Your task to perform on an android device: Open Youtube and go to the subscriptions tab Image 0: 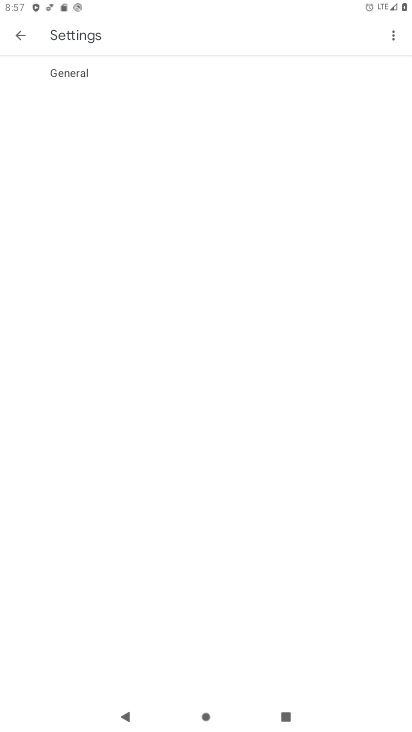
Step 0: press home button
Your task to perform on an android device: Open Youtube and go to the subscriptions tab Image 1: 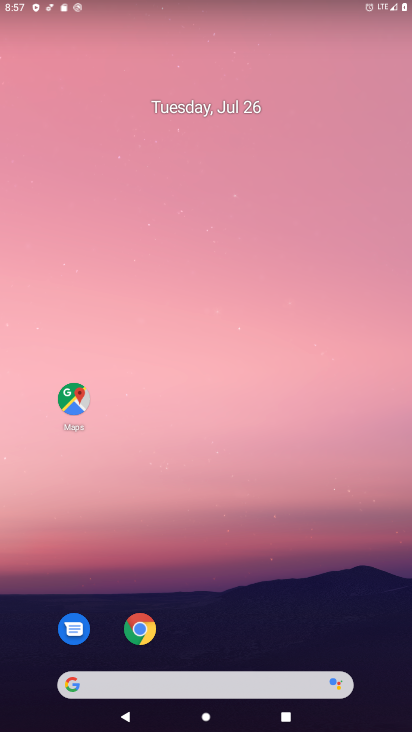
Step 1: drag from (216, 673) to (141, 77)
Your task to perform on an android device: Open Youtube and go to the subscriptions tab Image 2: 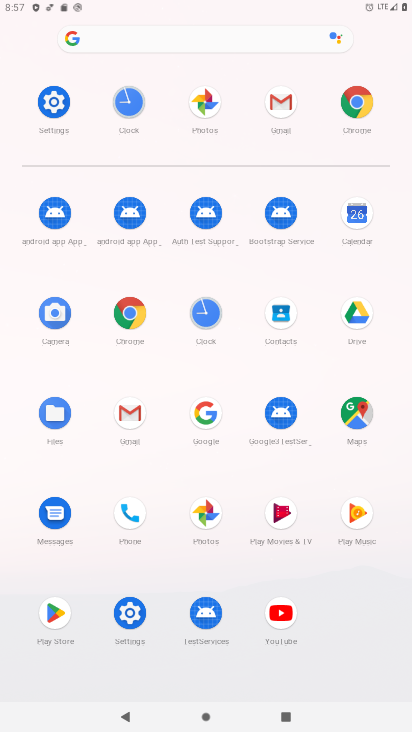
Step 2: click (288, 612)
Your task to perform on an android device: Open Youtube and go to the subscriptions tab Image 3: 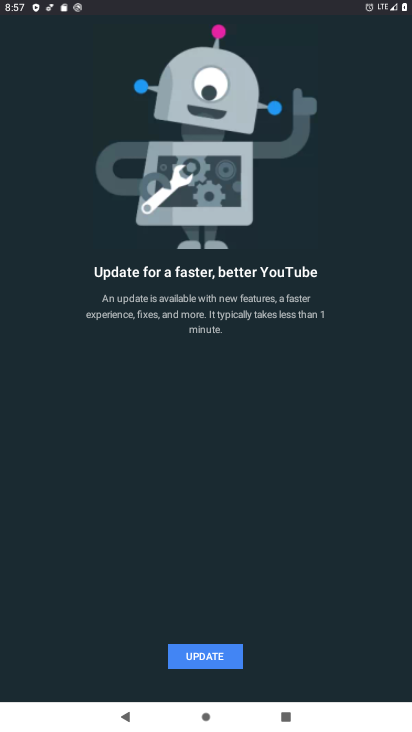
Step 3: click (193, 653)
Your task to perform on an android device: Open Youtube and go to the subscriptions tab Image 4: 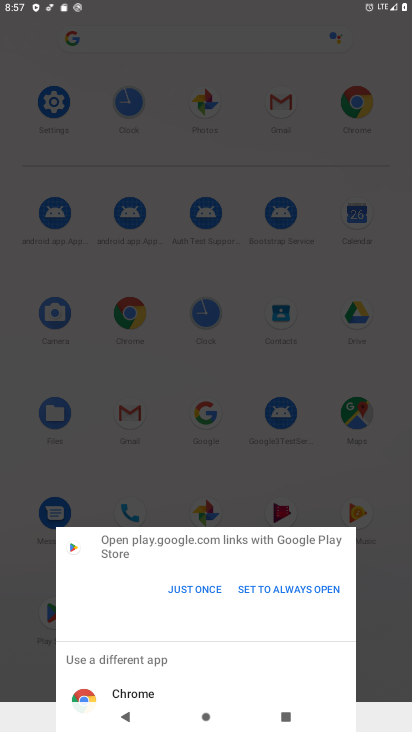
Step 4: click (185, 594)
Your task to perform on an android device: Open Youtube and go to the subscriptions tab Image 5: 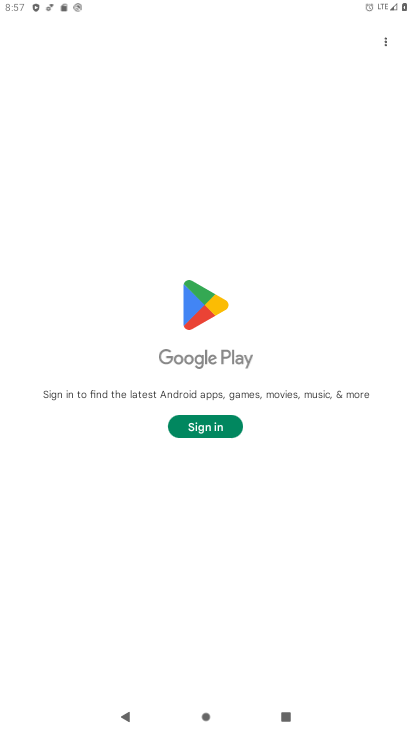
Step 5: task complete